Your task to perform on an android device: Search for pizza restaurants on Maps Image 0: 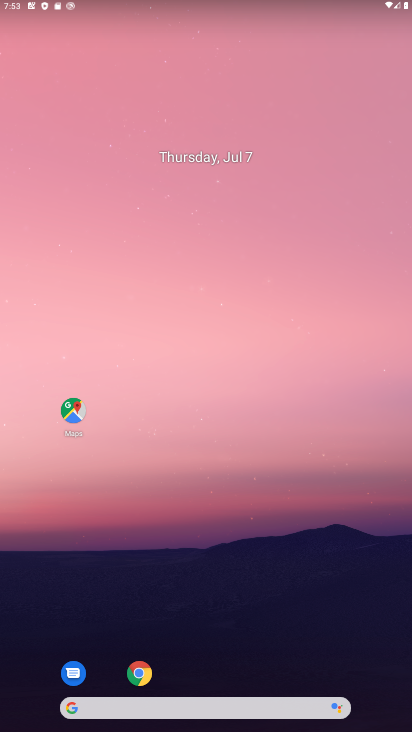
Step 0: drag from (134, 53) to (137, 10)
Your task to perform on an android device: Search for pizza restaurants on Maps Image 1: 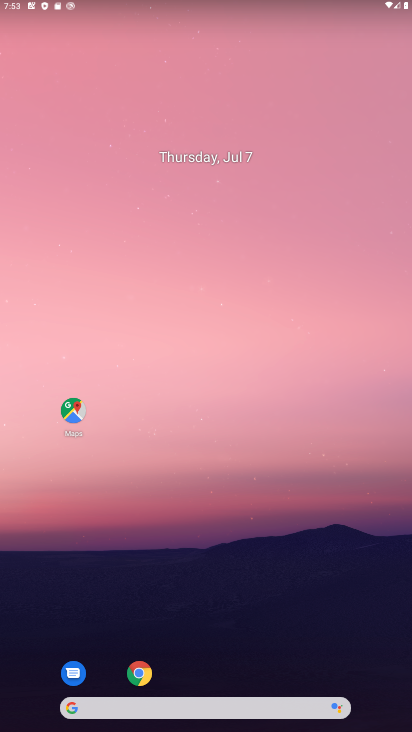
Step 1: drag from (174, 504) to (169, 49)
Your task to perform on an android device: Search for pizza restaurants on Maps Image 2: 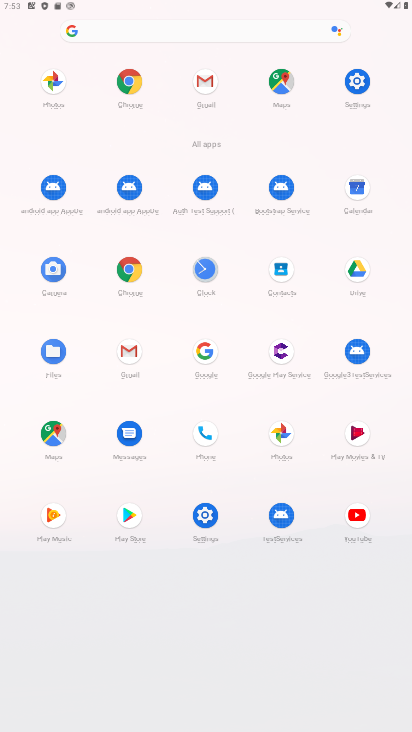
Step 2: click (293, 107)
Your task to perform on an android device: Search for pizza restaurants on Maps Image 3: 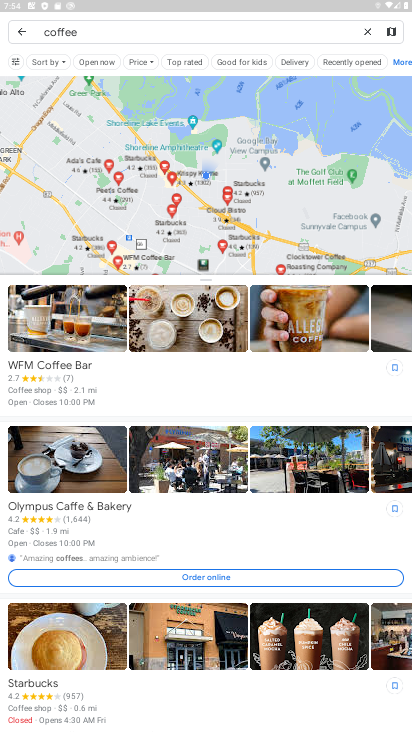
Step 3: click (369, 38)
Your task to perform on an android device: Search for pizza restaurants on Maps Image 4: 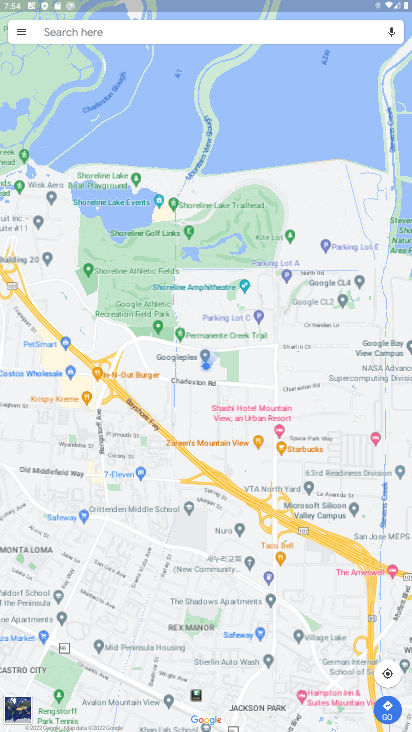
Step 4: click (244, 31)
Your task to perform on an android device: Search for pizza restaurants on Maps Image 5: 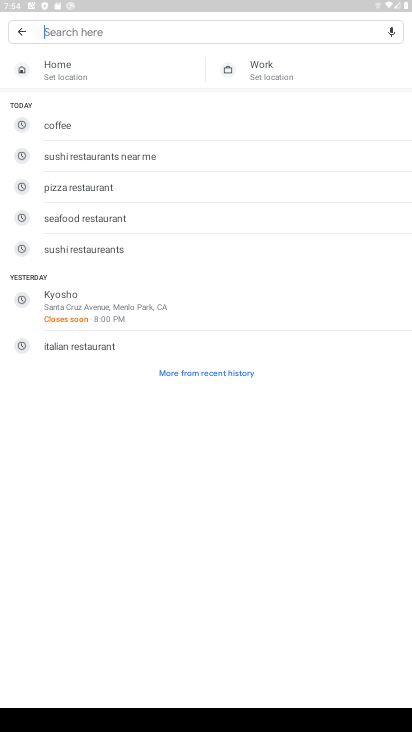
Step 5: type "pizza restaurants"
Your task to perform on an android device: Search for pizza restaurants on Maps Image 6: 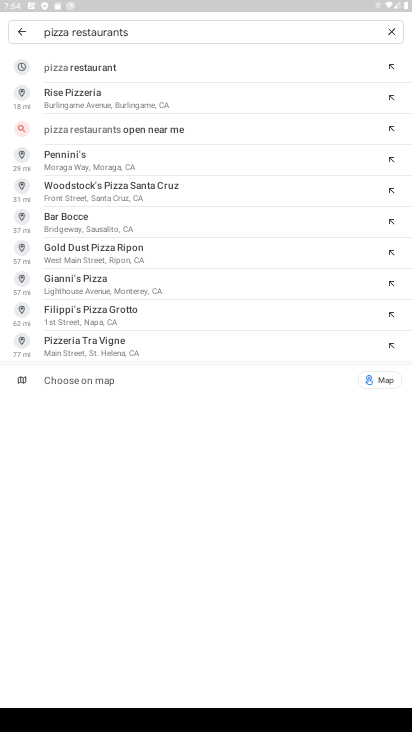
Step 6: click (131, 68)
Your task to perform on an android device: Search for pizza restaurants on Maps Image 7: 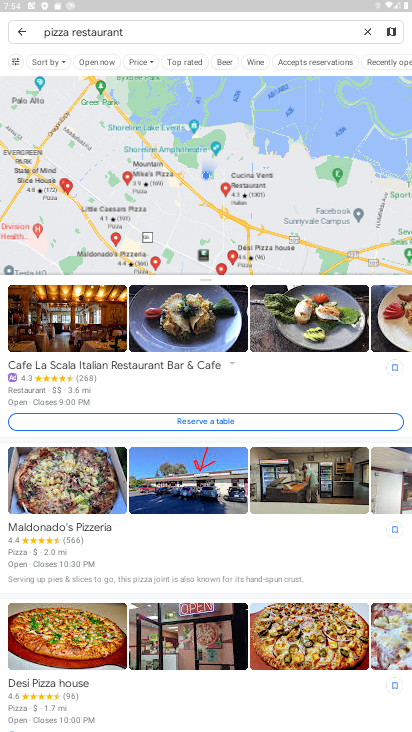
Step 7: task complete